Your task to perform on an android device: What's the weather going to be tomorrow? Image 0: 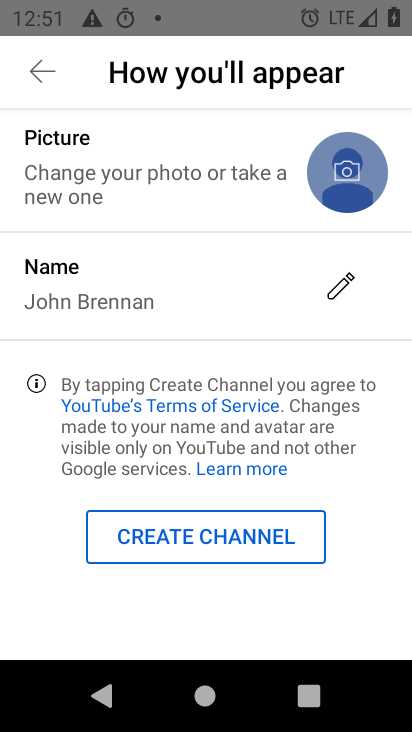
Step 0: press back button
Your task to perform on an android device: What's the weather going to be tomorrow? Image 1: 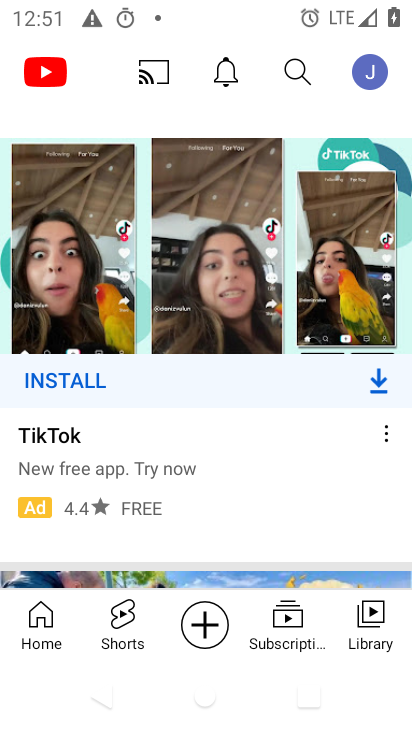
Step 1: press back button
Your task to perform on an android device: What's the weather going to be tomorrow? Image 2: 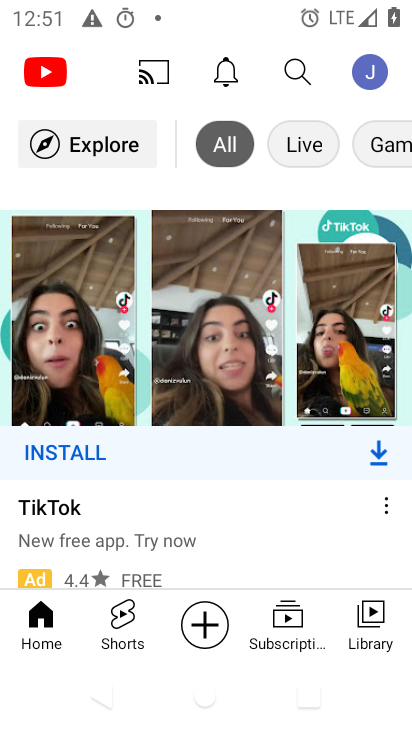
Step 2: press back button
Your task to perform on an android device: What's the weather going to be tomorrow? Image 3: 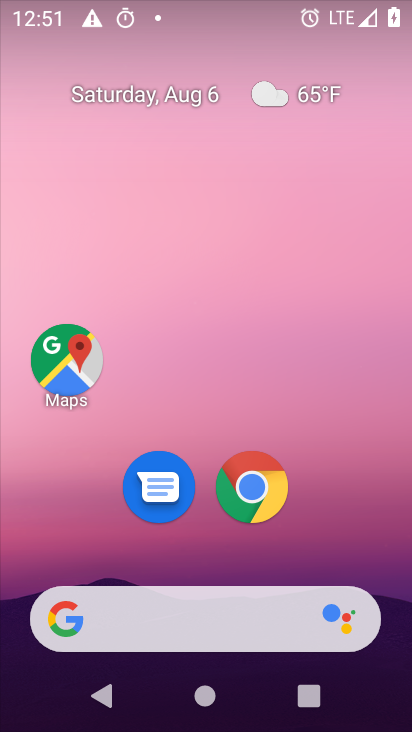
Step 3: click (156, 629)
Your task to perform on an android device: What's the weather going to be tomorrow? Image 4: 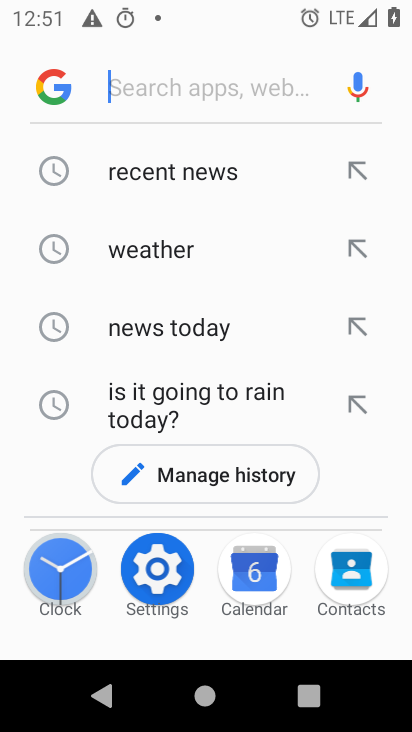
Step 4: click (147, 246)
Your task to perform on an android device: What's the weather going to be tomorrow? Image 5: 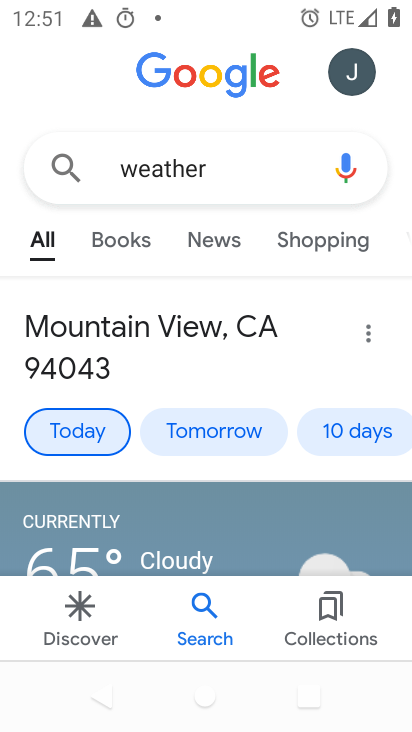
Step 5: click (196, 433)
Your task to perform on an android device: What's the weather going to be tomorrow? Image 6: 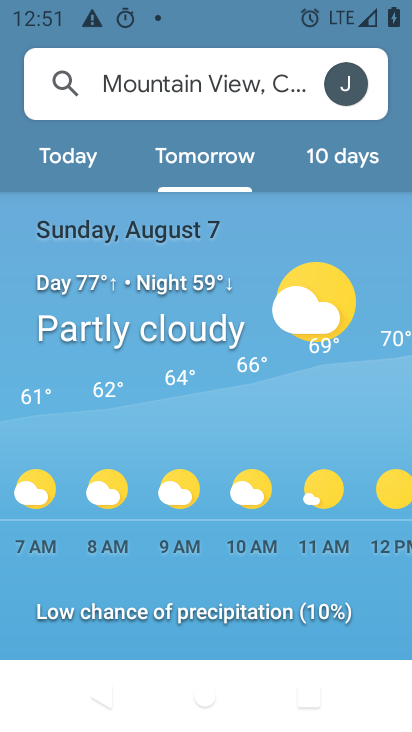
Step 6: task complete